Your task to perform on an android device: Open the Play Movies app and select the watchlist tab. Image 0: 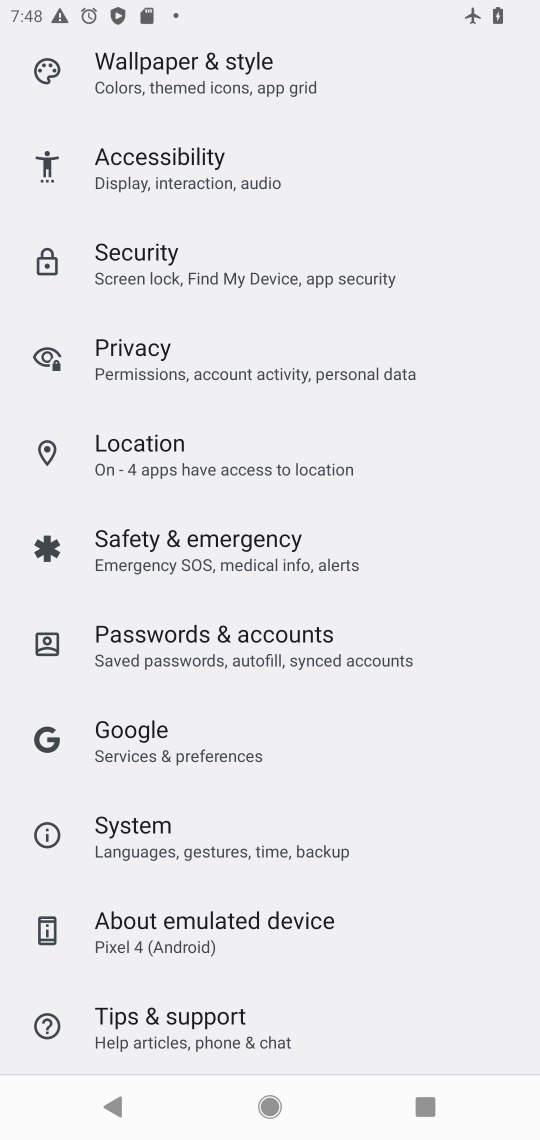
Step 0: press home button
Your task to perform on an android device: Open the Play Movies app and select the watchlist tab. Image 1: 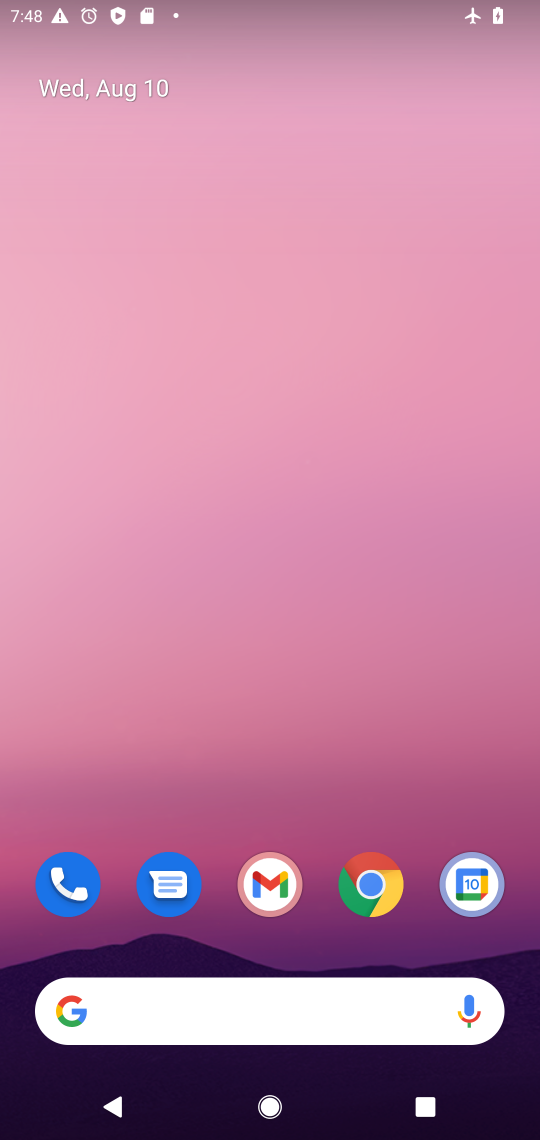
Step 1: task complete